Your task to perform on an android device: Open network settings Image 0: 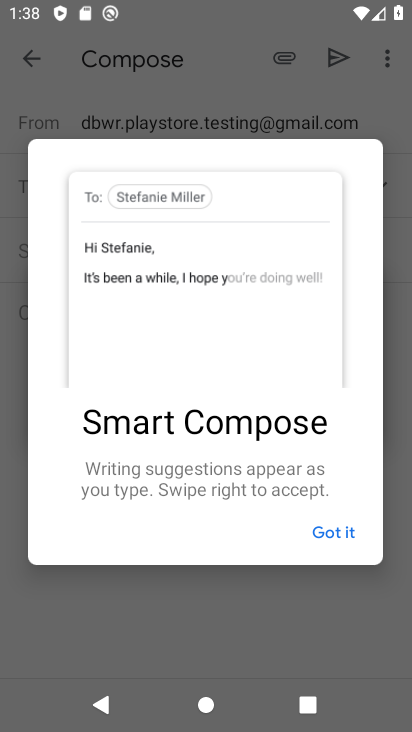
Step 0: press back button
Your task to perform on an android device: Open network settings Image 1: 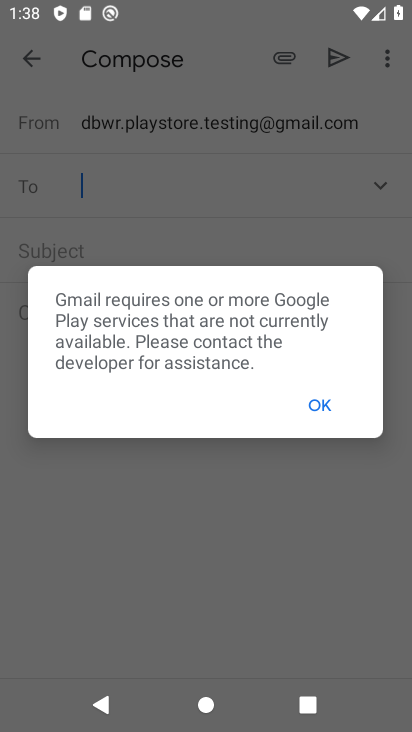
Step 1: press home button
Your task to perform on an android device: Open network settings Image 2: 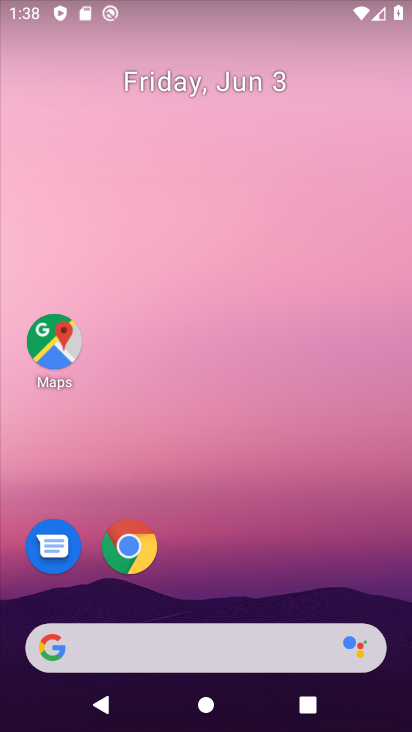
Step 2: drag from (225, 600) to (182, 26)
Your task to perform on an android device: Open network settings Image 3: 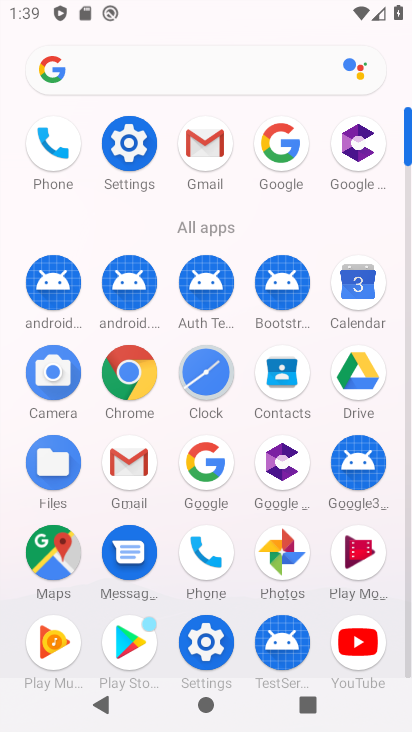
Step 3: click (209, 639)
Your task to perform on an android device: Open network settings Image 4: 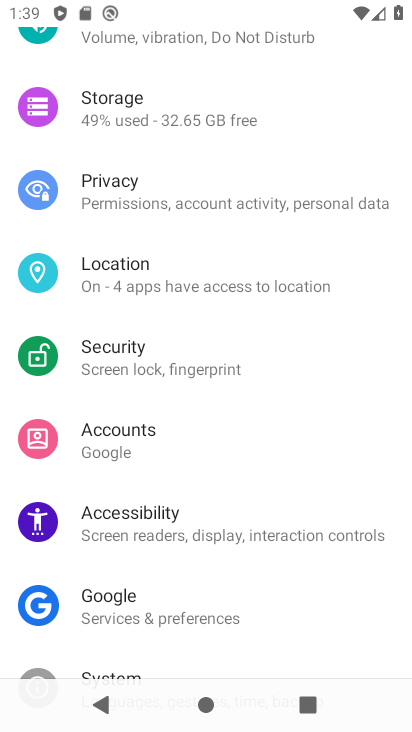
Step 4: drag from (168, 90) to (179, 627)
Your task to perform on an android device: Open network settings Image 5: 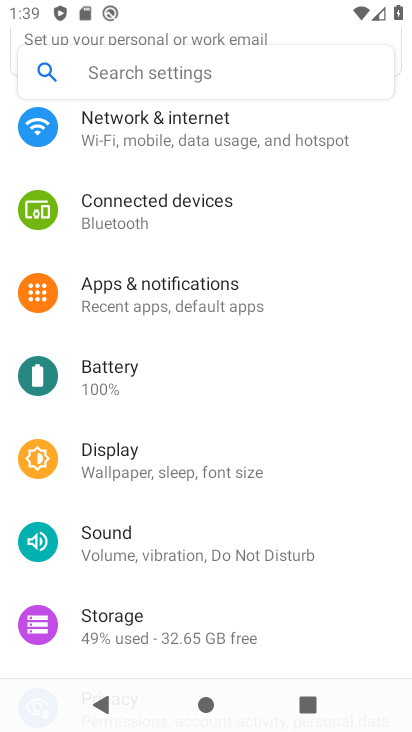
Step 5: click (187, 136)
Your task to perform on an android device: Open network settings Image 6: 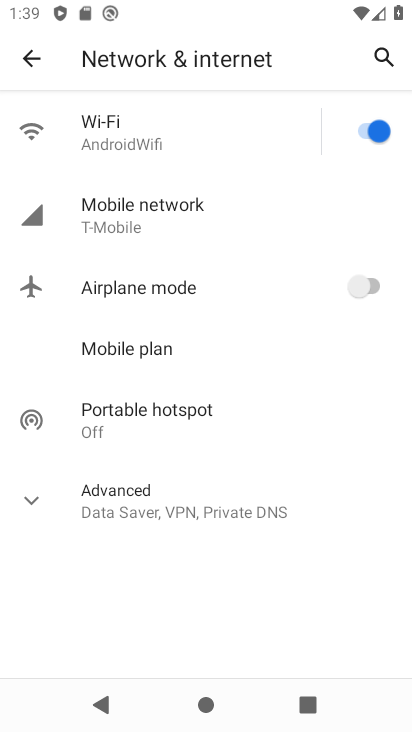
Step 6: click (82, 225)
Your task to perform on an android device: Open network settings Image 7: 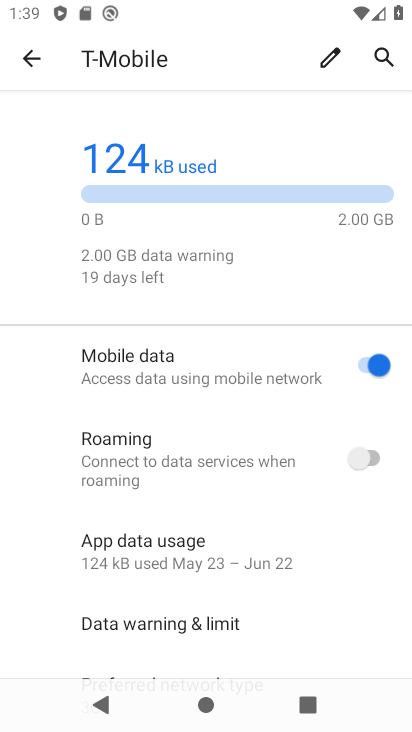
Step 7: task complete